Your task to perform on an android device: Open notification settings Image 0: 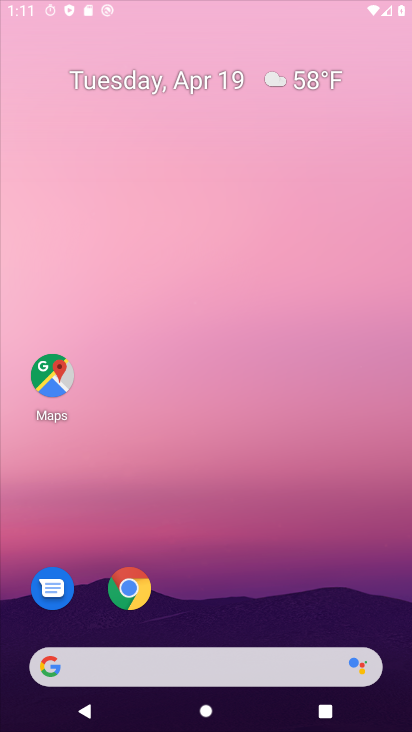
Step 0: click (40, 389)
Your task to perform on an android device: Open notification settings Image 1: 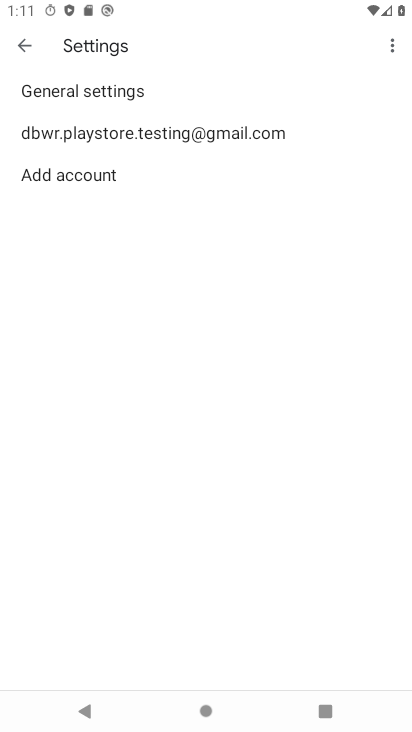
Step 1: click (91, 143)
Your task to perform on an android device: Open notification settings Image 2: 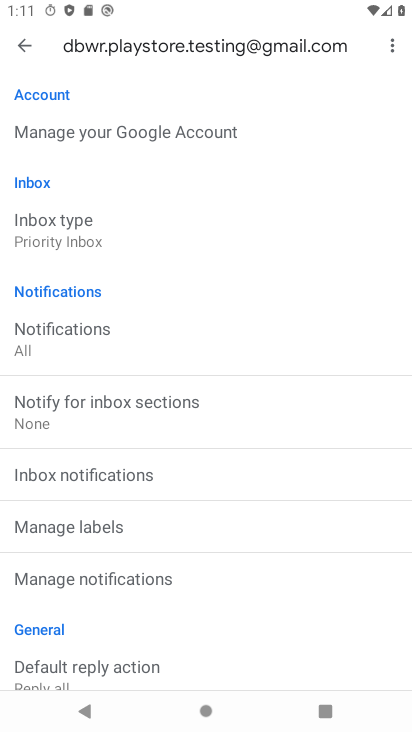
Step 2: click (183, 571)
Your task to perform on an android device: Open notification settings Image 3: 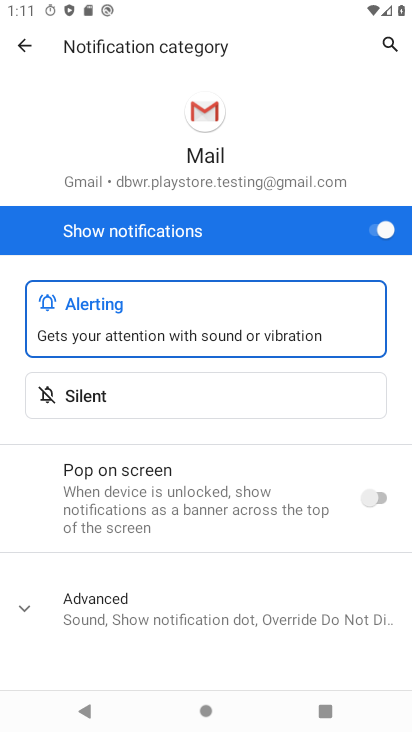
Step 3: task complete